Your task to perform on an android device: Do I have any events this weekend? Image 0: 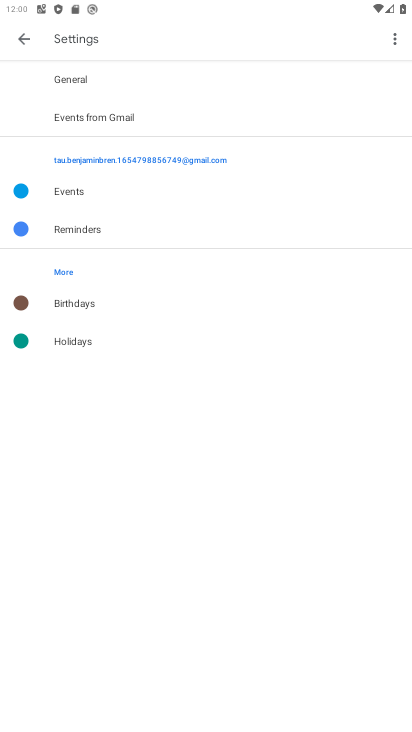
Step 0: press home button
Your task to perform on an android device: Do I have any events this weekend? Image 1: 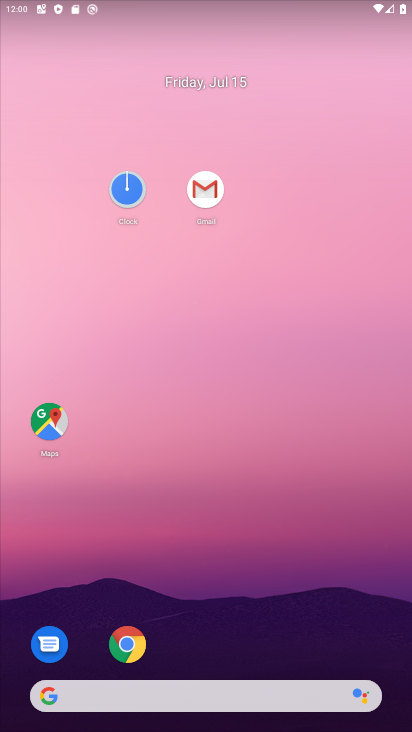
Step 1: drag from (285, 628) to (333, 122)
Your task to perform on an android device: Do I have any events this weekend? Image 2: 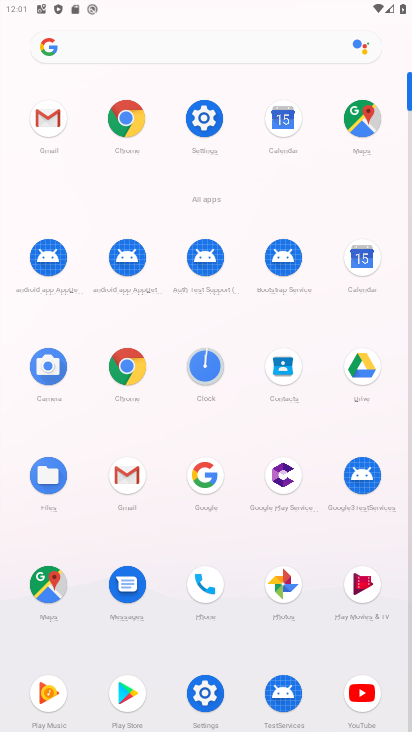
Step 2: click (289, 117)
Your task to perform on an android device: Do I have any events this weekend? Image 3: 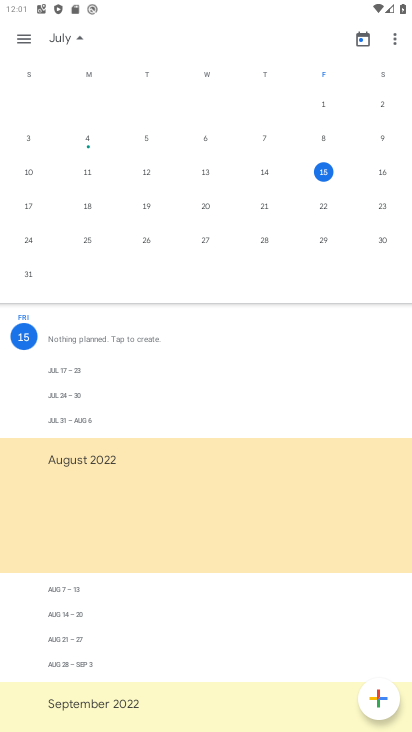
Step 3: click (32, 41)
Your task to perform on an android device: Do I have any events this weekend? Image 4: 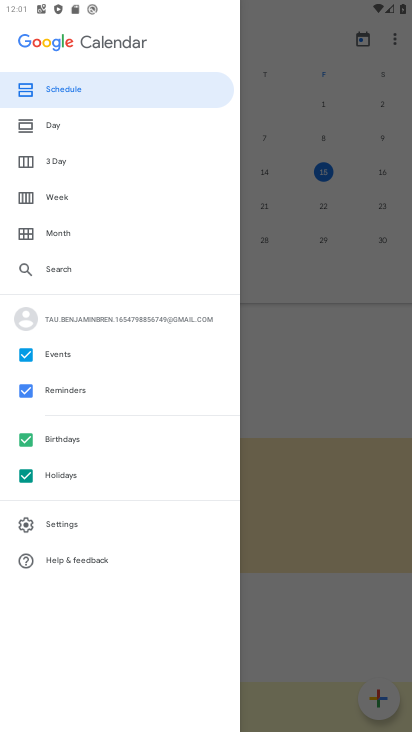
Step 4: click (88, 195)
Your task to perform on an android device: Do I have any events this weekend? Image 5: 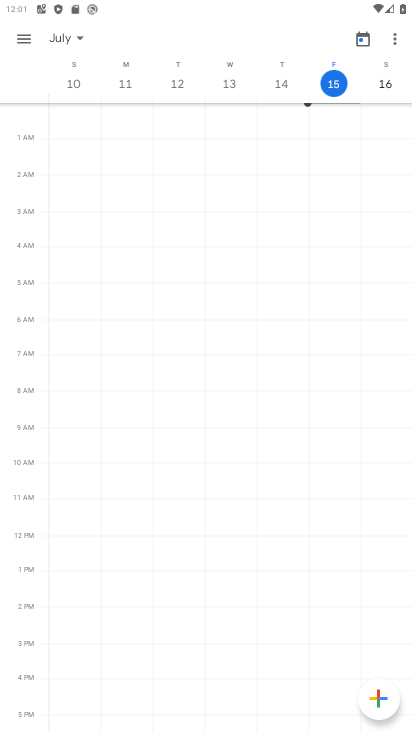
Step 5: task complete